Your task to perform on an android device: turn off wifi Image 0: 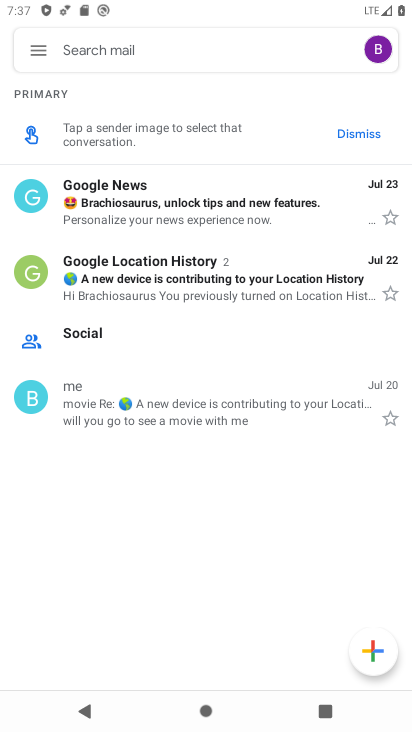
Step 0: press home button
Your task to perform on an android device: turn off wifi Image 1: 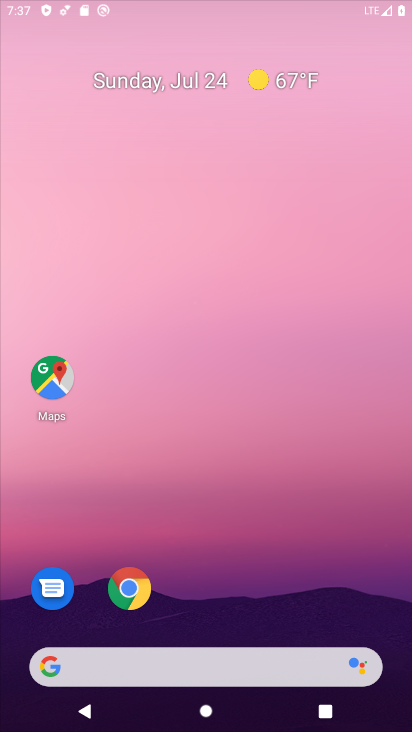
Step 1: drag from (169, 684) to (199, 254)
Your task to perform on an android device: turn off wifi Image 2: 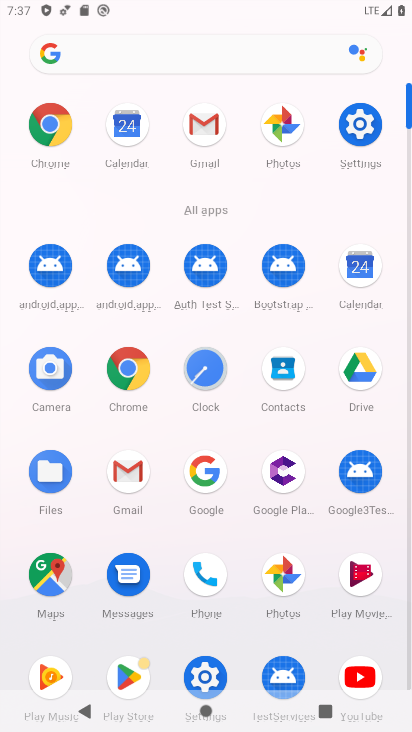
Step 2: click (358, 120)
Your task to perform on an android device: turn off wifi Image 3: 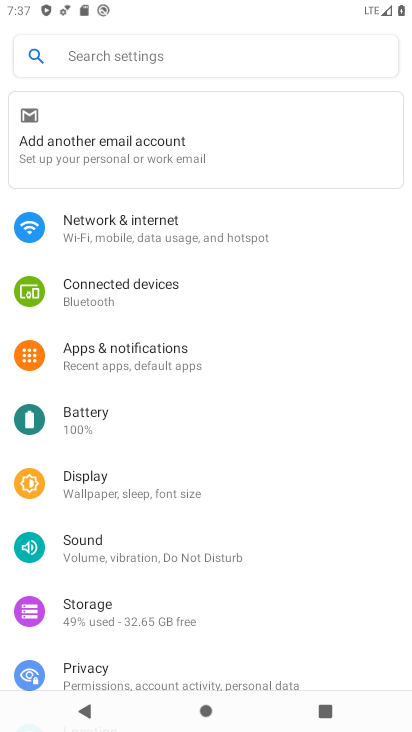
Step 3: click (140, 209)
Your task to perform on an android device: turn off wifi Image 4: 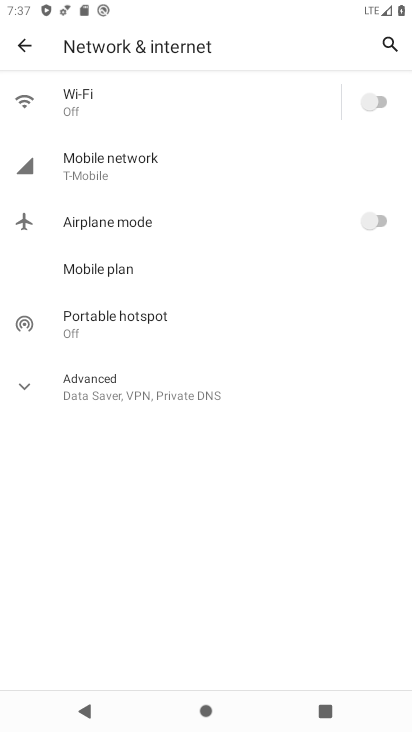
Step 4: task complete